Your task to perform on an android device: move a message to another label in the gmail app Image 0: 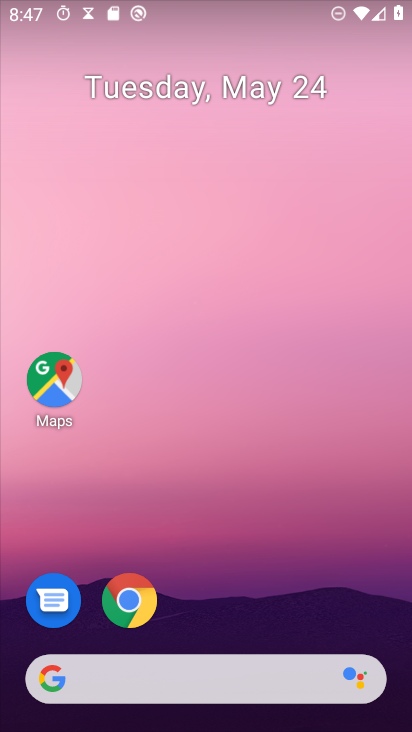
Step 0: drag from (83, 26) to (113, 500)
Your task to perform on an android device: move a message to another label in the gmail app Image 1: 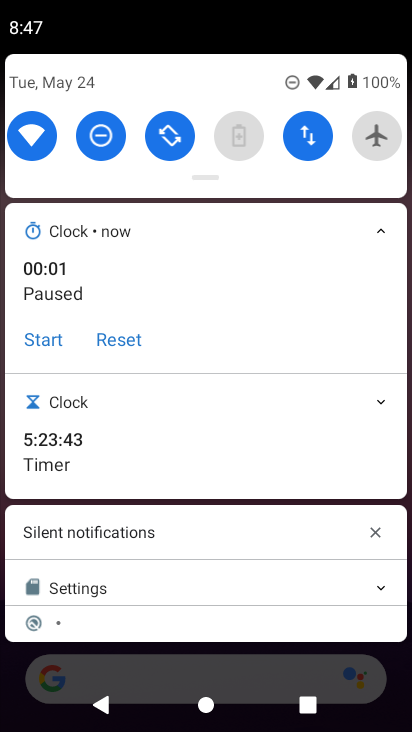
Step 1: click (124, 335)
Your task to perform on an android device: move a message to another label in the gmail app Image 2: 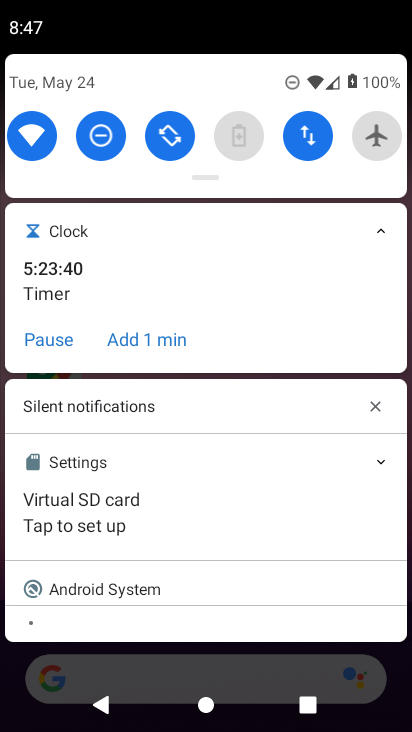
Step 2: click (158, 668)
Your task to perform on an android device: move a message to another label in the gmail app Image 3: 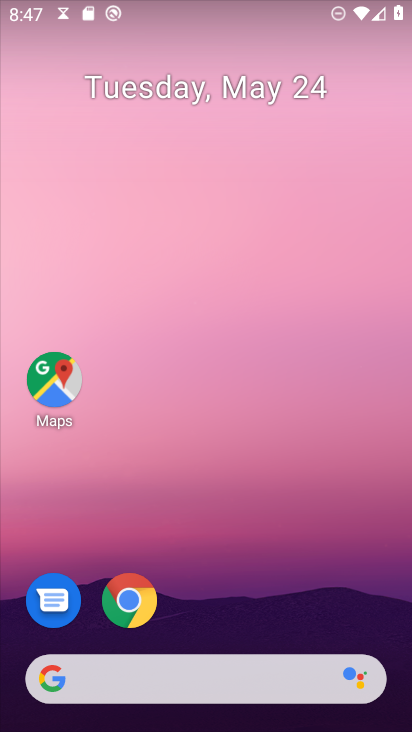
Step 3: drag from (201, 613) to (310, 45)
Your task to perform on an android device: move a message to another label in the gmail app Image 4: 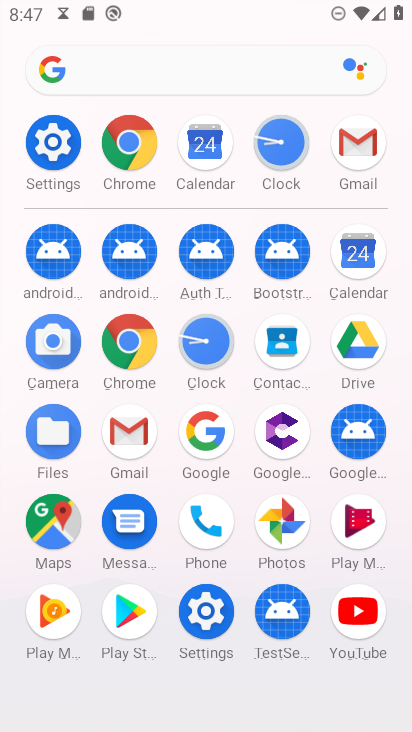
Step 4: click (355, 135)
Your task to perform on an android device: move a message to another label in the gmail app Image 5: 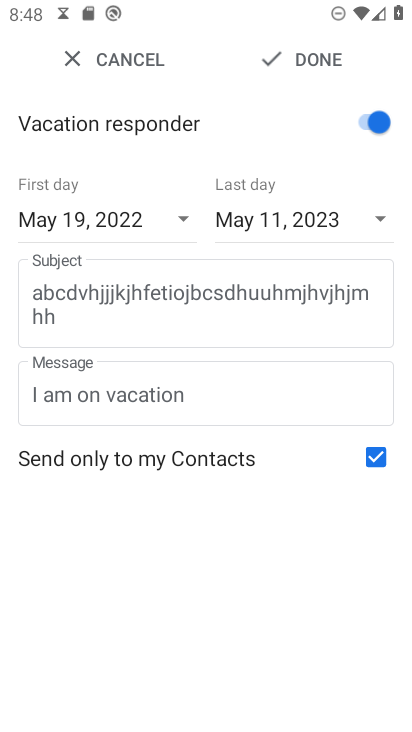
Step 5: click (93, 64)
Your task to perform on an android device: move a message to another label in the gmail app Image 6: 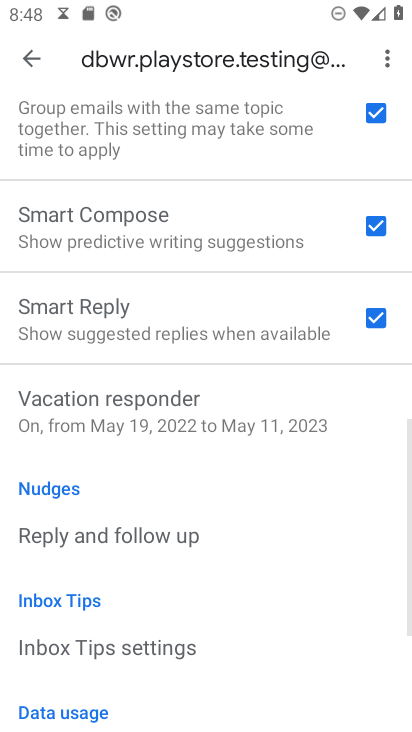
Step 6: click (38, 47)
Your task to perform on an android device: move a message to another label in the gmail app Image 7: 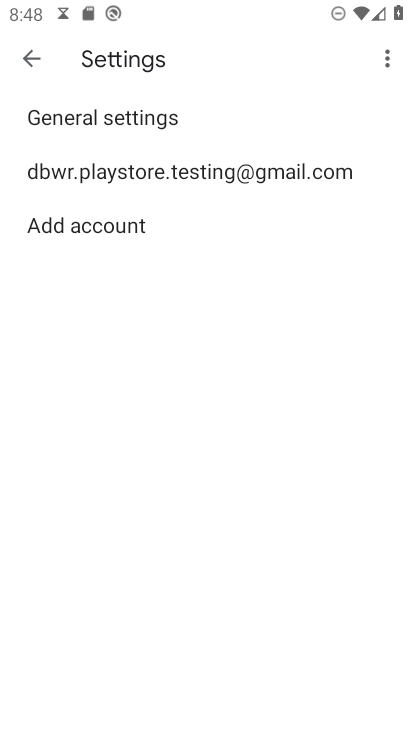
Step 7: click (38, 47)
Your task to perform on an android device: move a message to another label in the gmail app Image 8: 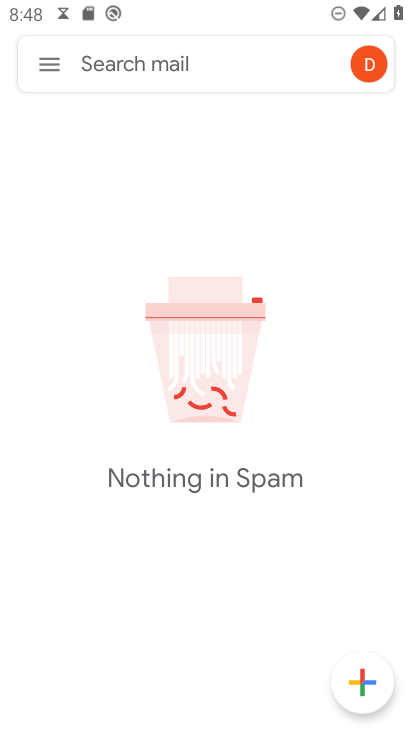
Step 8: click (50, 61)
Your task to perform on an android device: move a message to another label in the gmail app Image 9: 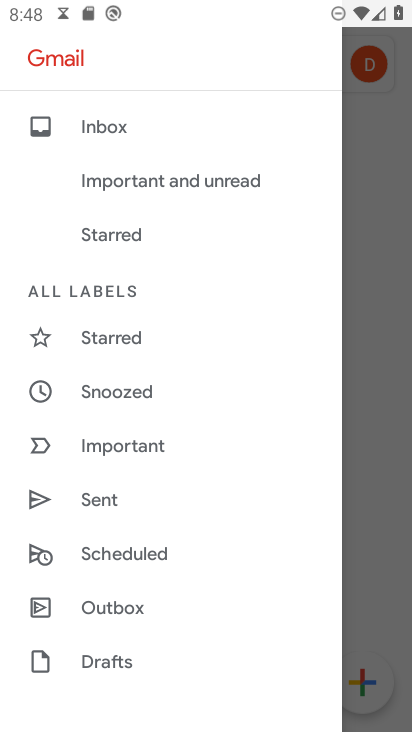
Step 9: drag from (154, 573) to (192, 272)
Your task to perform on an android device: move a message to another label in the gmail app Image 10: 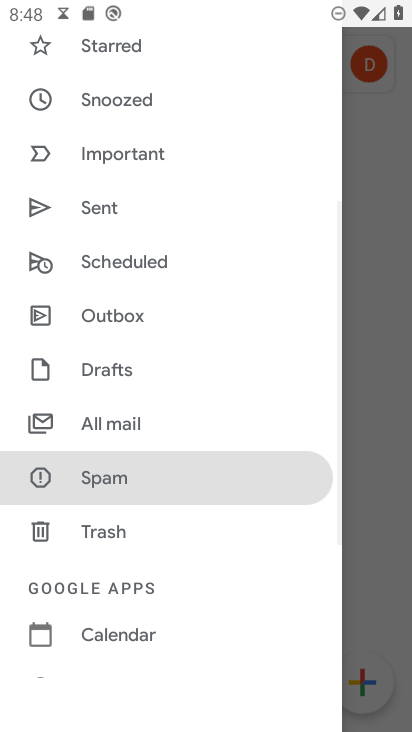
Step 10: click (116, 426)
Your task to perform on an android device: move a message to another label in the gmail app Image 11: 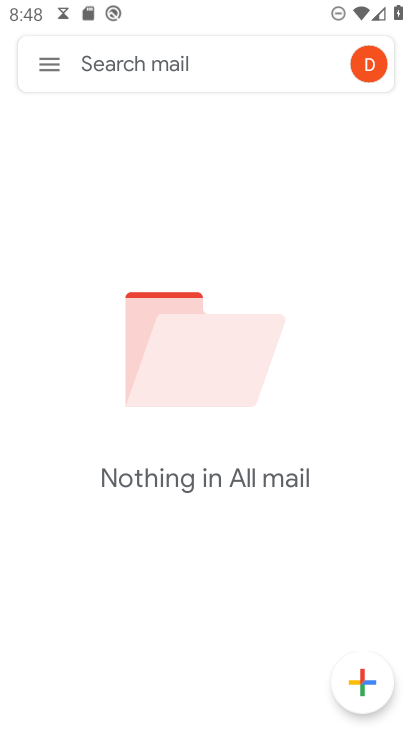
Step 11: task complete